Your task to perform on an android device: Open Maps and search for coffee Image 0: 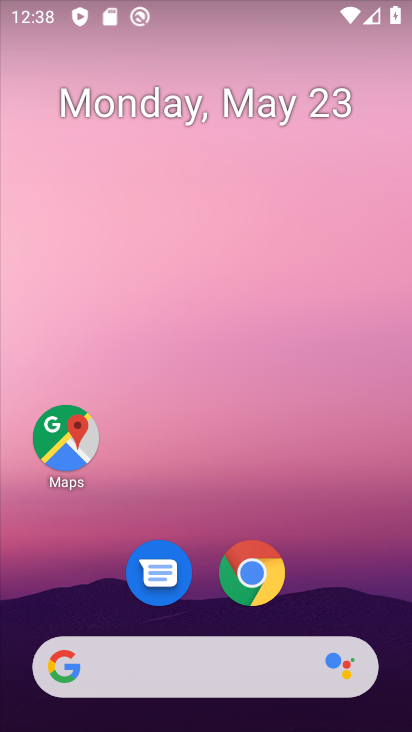
Step 0: drag from (333, 161) to (293, 5)
Your task to perform on an android device: Open Maps and search for coffee Image 1: 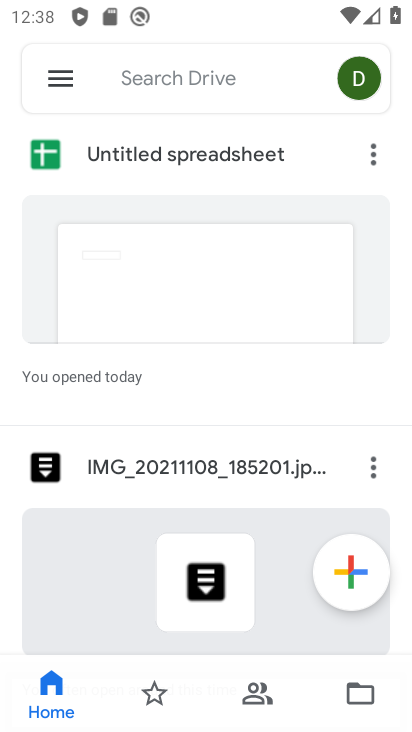
Step 1: press home button
Your task to perform on an android device: Open Maps and search for coffee Image 2: 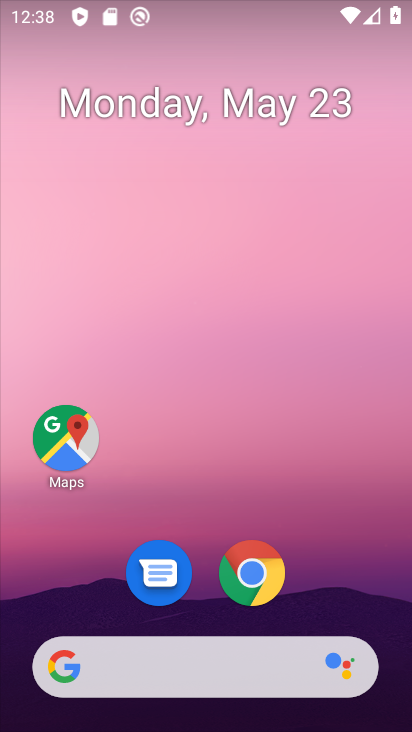
Step 2: drag from (208, 601) to (146, 39)
Your task to perform on an android device: Open Maps and search for coffee Image 3: 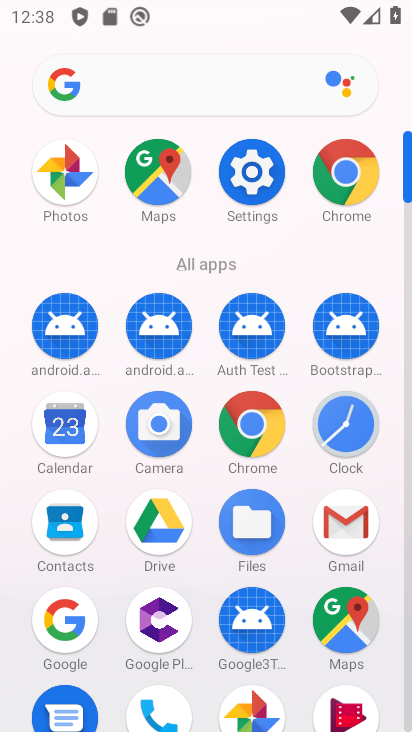
Step 3: click (353, 606)
Your task to perform on an android device: Open Maps and search for coffee Image 4: 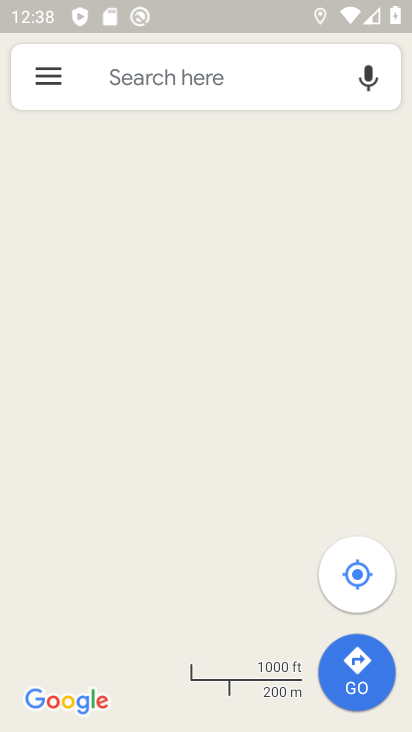
Step 4: click (129, 107)
Your task to perform on an android device: Open Maps and search for coffee Image 5: 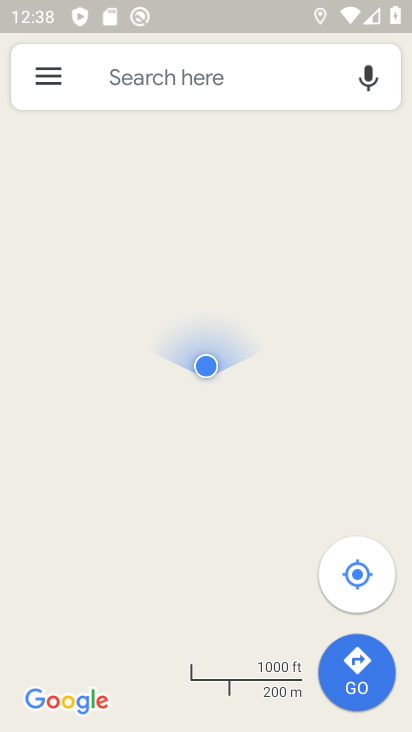
Step 5: click (129, 93)
Your task to perform on an android device: Open Maps and search for coffee Image 6: 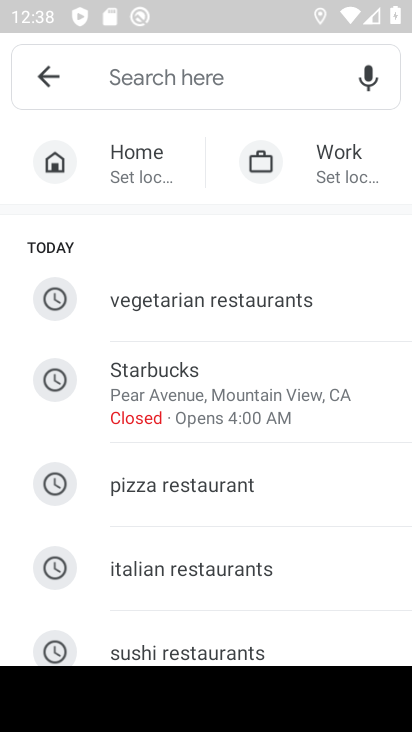
Step 6: type "coffee"
Your task to perform on an android device: Open Maps and search for coffee Image 7: 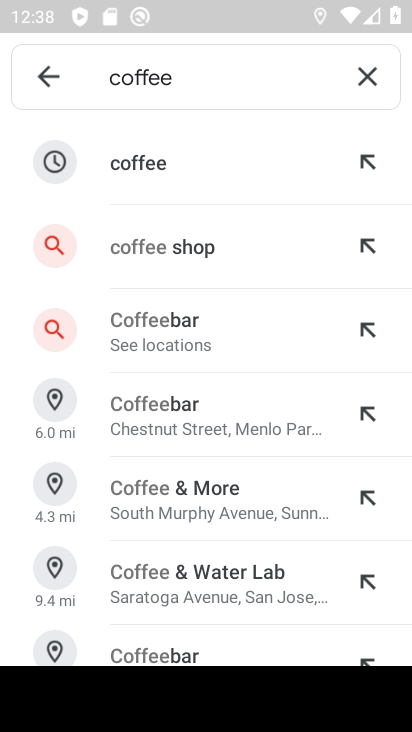
Step 7: click (166, 170)
Your task to perform on an android device: Open Maps and search for coffee Image 8: 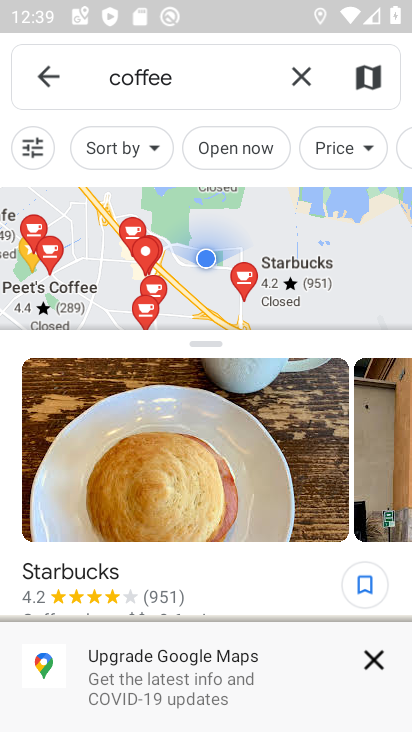
Step 8: press home button
Your task to perform on an android device: Open Maps and search for coffee Image 9: 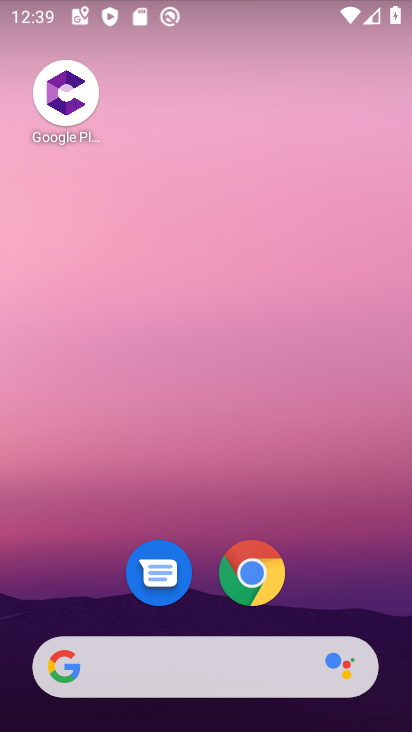
Step 9: drag from (217, 643) to (121, 142)
Your task to perform on an android device: Open Maps and search for coffee Image 10: 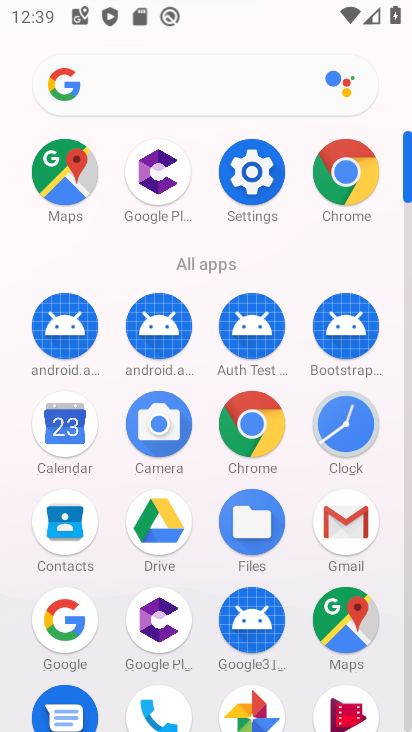
Step 10: click (366, 644)
Your task to perform on an android device: Open Maps and search for coffee Image 11: 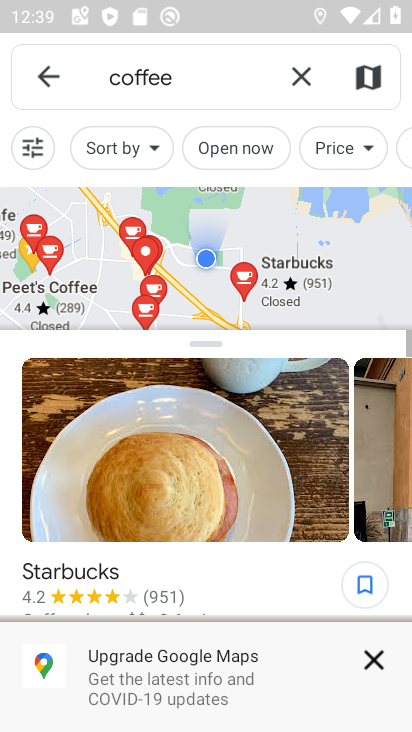
Step 11: task complete